Your task to perform on an android device: Open the map Image 0: 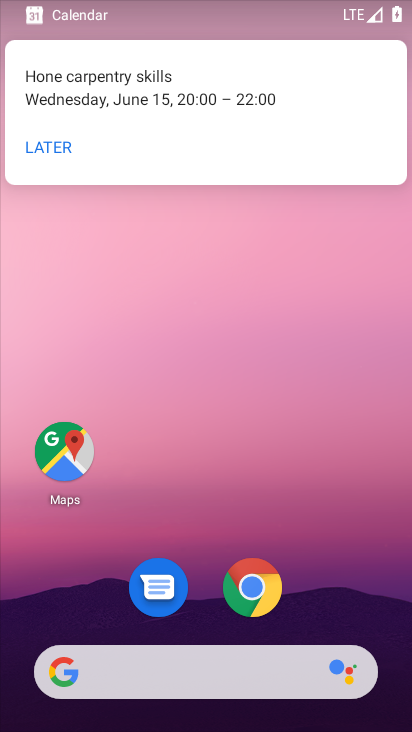
Step 0: click (167, 666)
Your task to perform on an android device: Open the map Image 1: 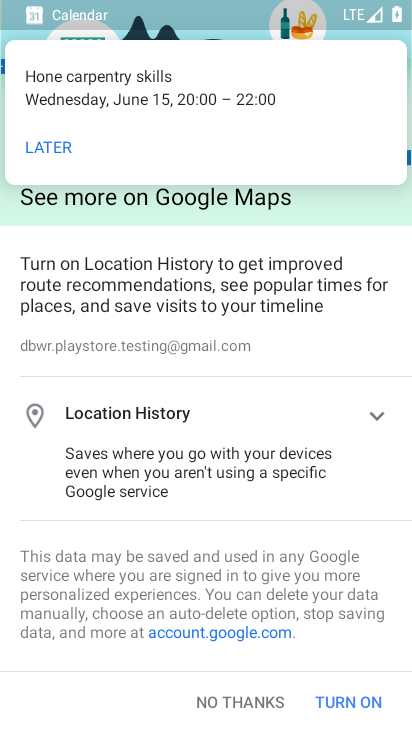
Step 1: click (62, 145)
Your task to perform on an android device: Open the map Image 2: 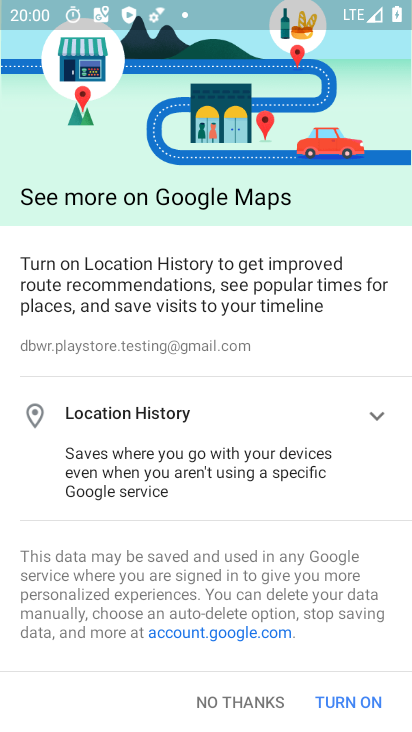
Step 2: click (341, 714)
Your task to perform on an android device: Open the map Image 3: 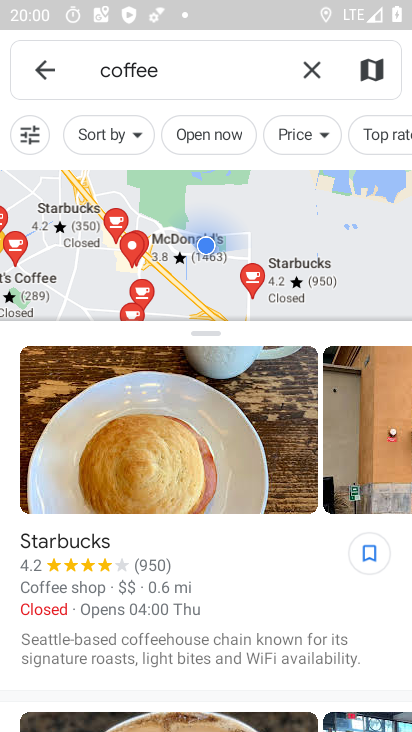
Step 3: task complete